Your task to perform on an android device: Find coffee shops on Maps Image 0: 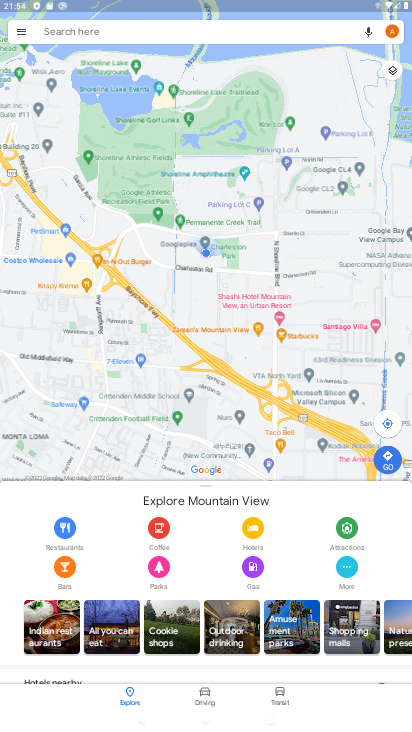
Step 0: drag from (140, 415) to (290, 134)
Your task to perform on an android device: Find coffee shops on Maps Image 1: 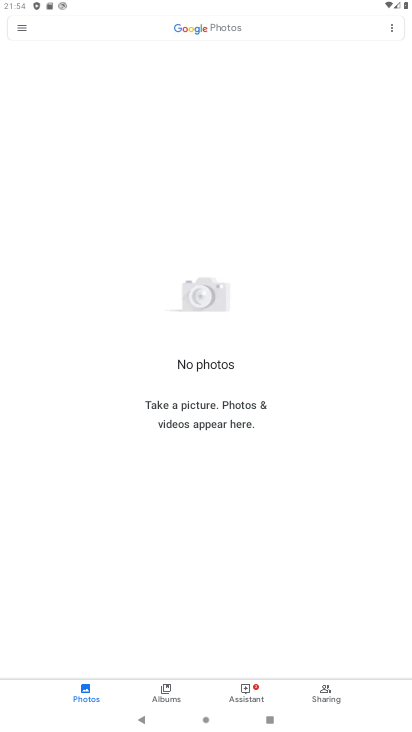
Step 1: press home button
Your task to perform on an android device: Find coffee shops on Maps Image 2: 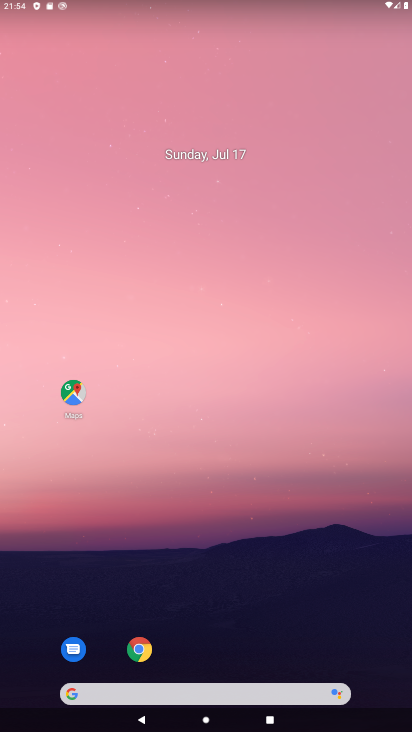
Step 2: click (78, 400)
Your task to perform on an android device: Find coffee shops on Maps Image 3: 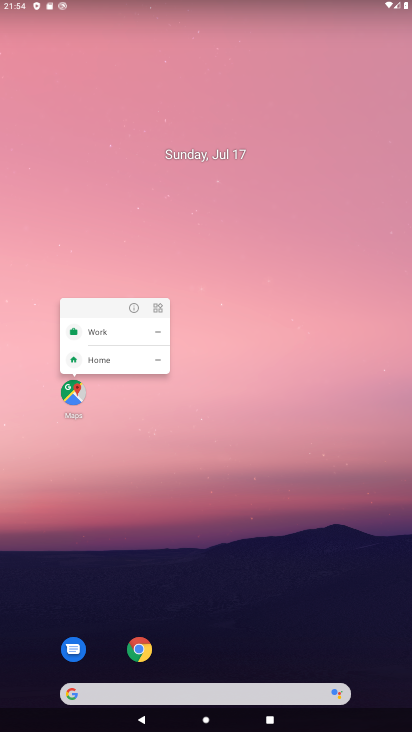
Step 3: click (76, 400)
Your task to perform on an android device: Find coffee shops on Maps Image 4: 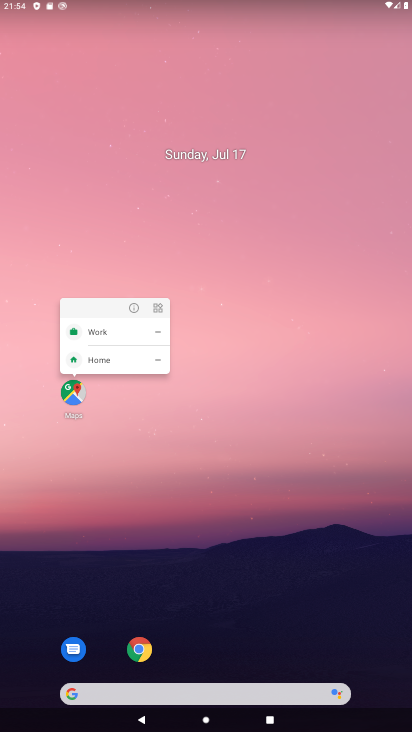
Step 4: click (72, 394)
Your task to perform on an android device: Find coffee shops on Maps Image 5: 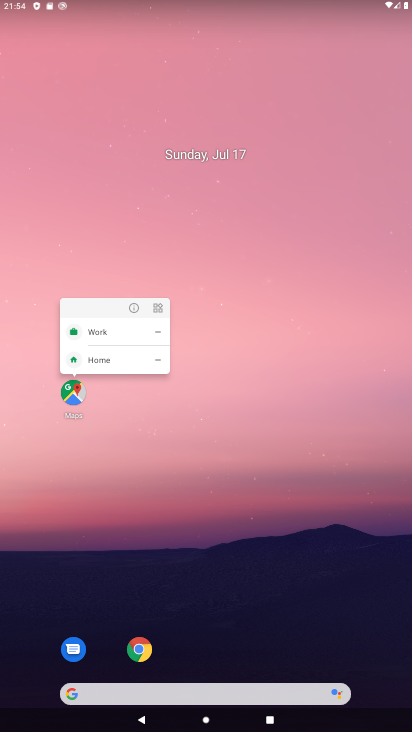
Step 5: click (56, 399)
Your task to perform on an android device: Find coffee shops on Maps Image 6: 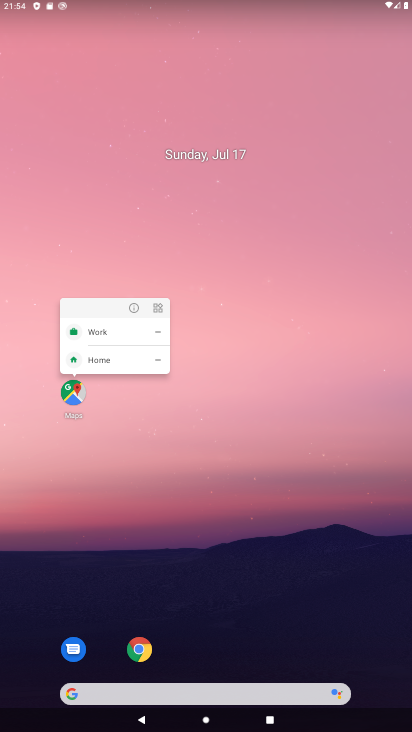
Step 6: task complete